Your task to perform on an android device: turn off airplane mode Image 0: 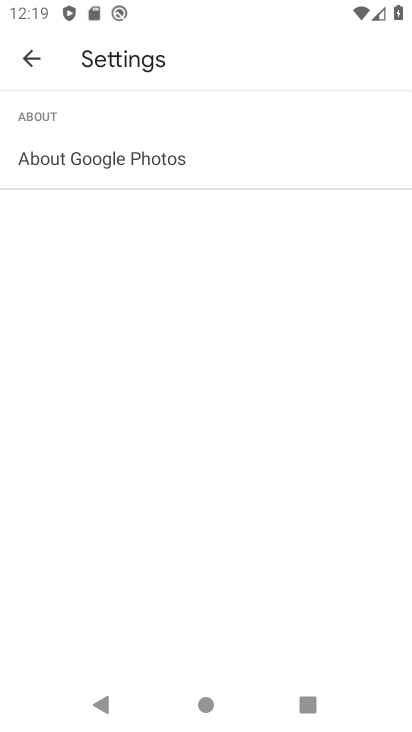
Step 0: press home button
Your task to perform on an android device: turn off airplane mode Image 1: 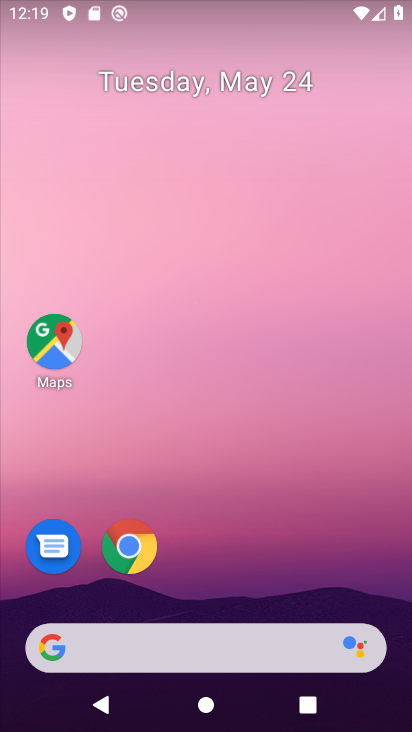
Step 1: drag from (159, 589) to (253, 7)
Your task to perform on an android device: turn off airplane mode Image 2: 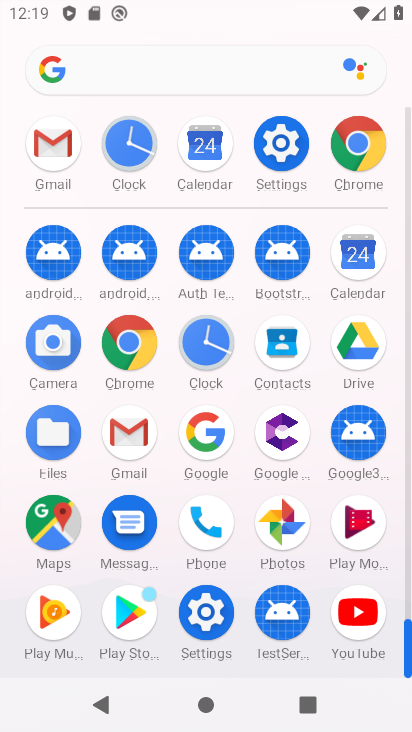
Step 2: click (297, 169)
Your task to perform on an android device: turn off airplane mode Image 3: 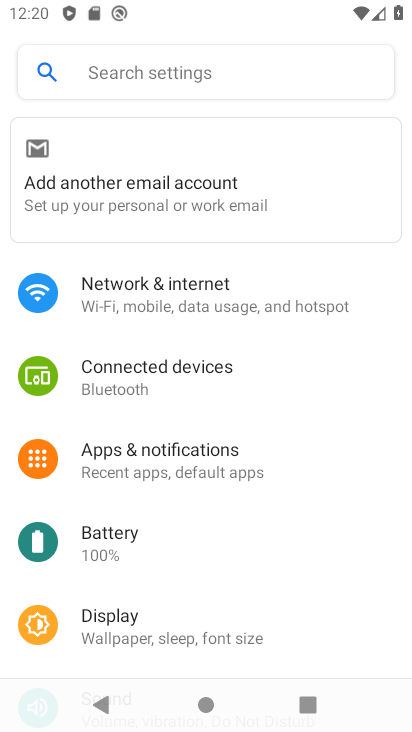
Step 3: drag from (195, 636) to (199, 366)
Your task to perform on an android device: turn off airplane mode Image 4: 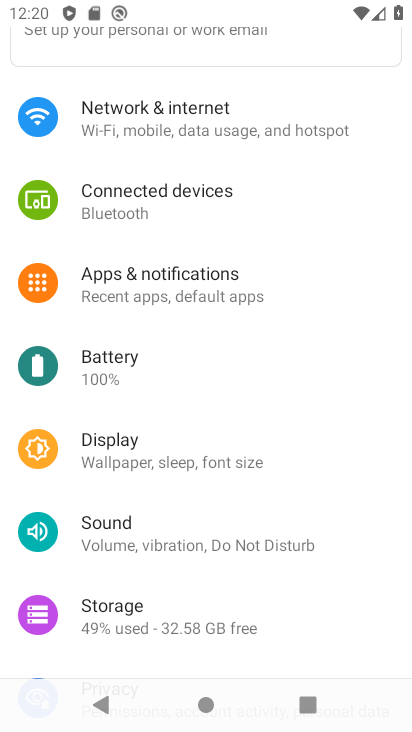
Step 4: click (243, 110)
Your task to perform on an android device: turn off airplane mode Image 5: 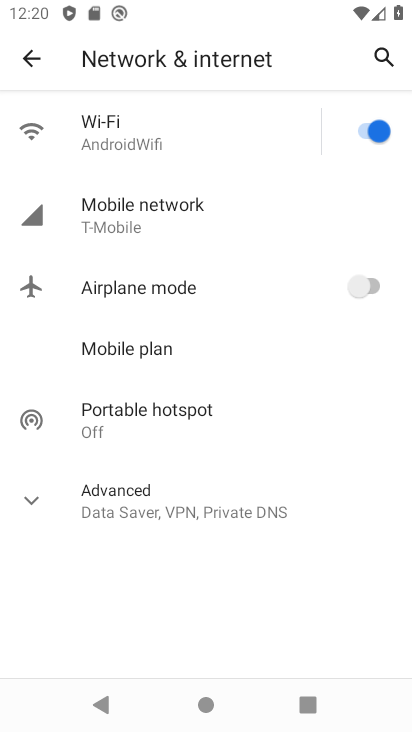
Step 5: task complete